Your task to perform on an android device: toggle translation in the chrome app Image 0: 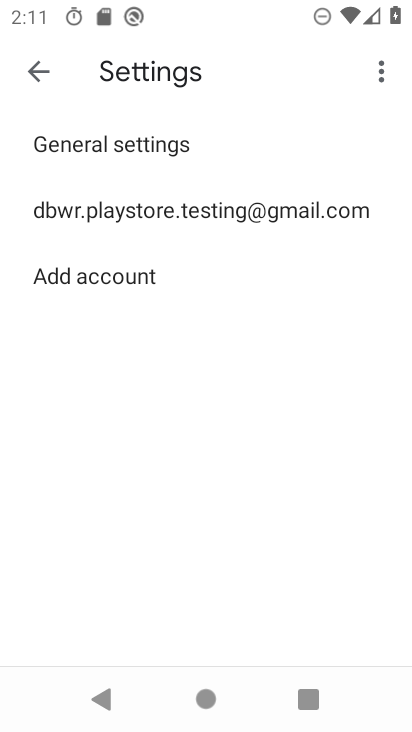
Step 0: press home button
Your task to perform on an android device: toggle translation in the chrome app Image 1: 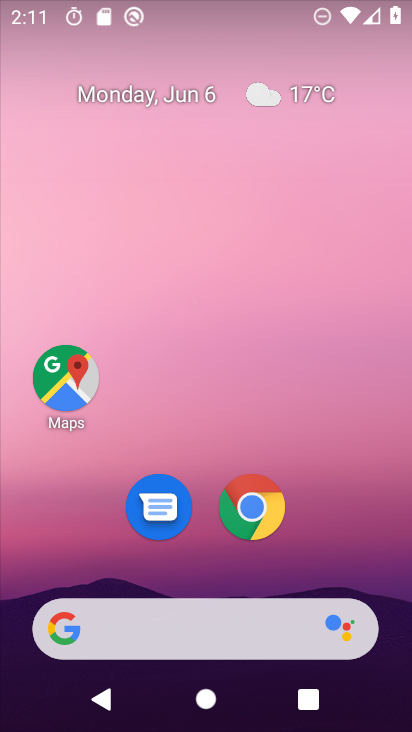
Step 1: drag from (260, 666) to (210, 184)
Your task to perform on an android device: toggle translation in the chrome app Image 2: 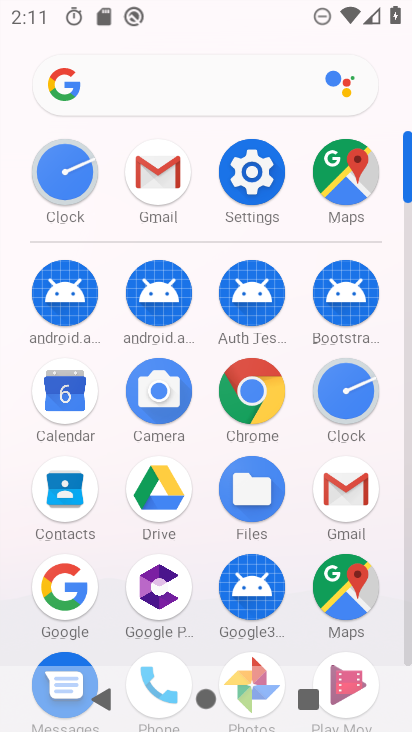
Step 2: click (266, 391)
Your task to perform on an android device: toggle translation in the chrome app Image 3: 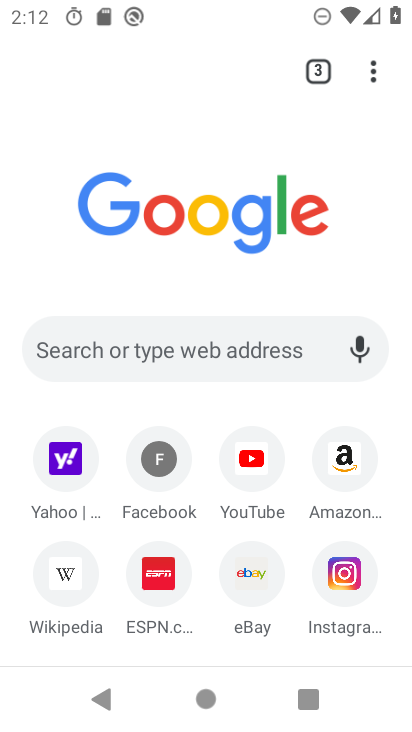
Step 3: click (370, 88)
Your task to perform on an android device: toggle translation in the chrome app Image 4: 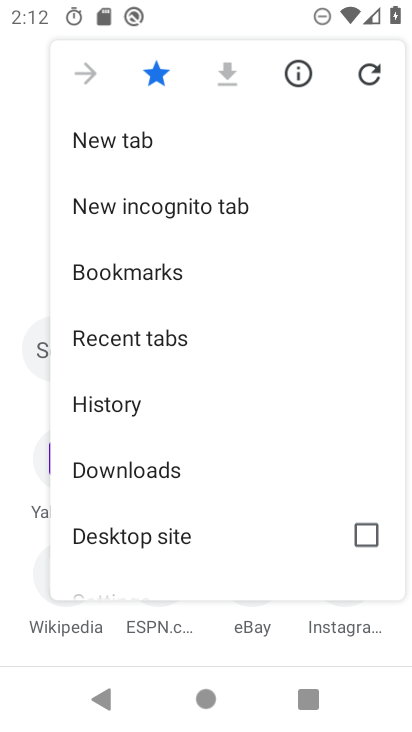
Step 4: drag from (173, 494) to (182, 255)
Your task to perform on an android device: toggle translation in the chrome app Image 5: 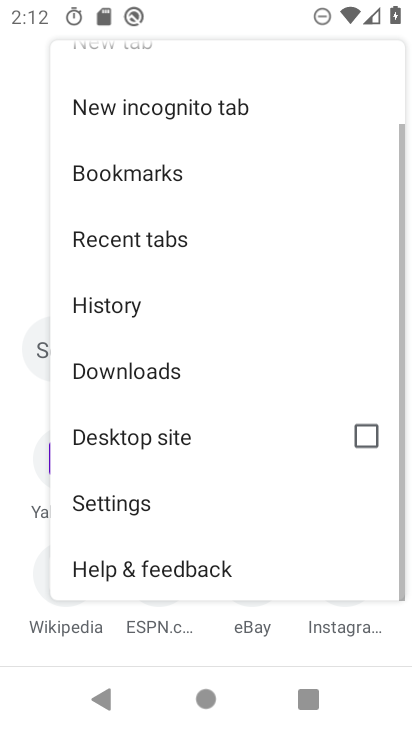
Step 5: click (140, 502)
Your task to perform on an android device: toggle translation in the chrome app Image 6: 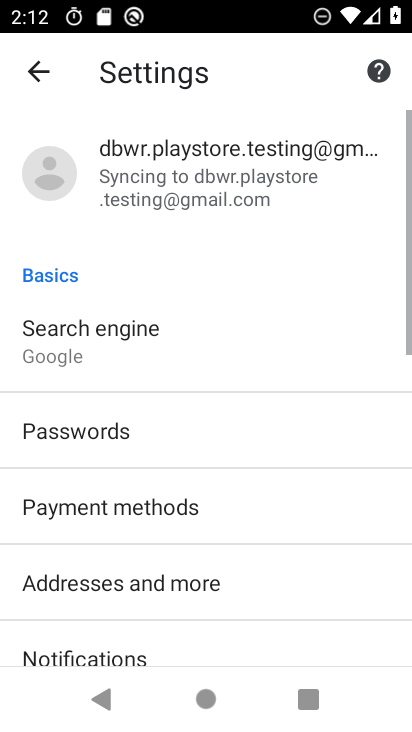
Step 6: drag from (165, 545) to (217, 353)
Your task to perform on an android device: toggle translation in the chrome app Image 7: 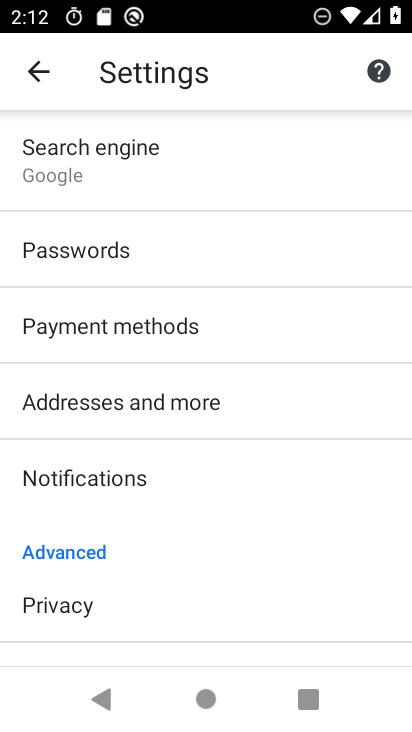
Step 7: drag from (196, 565) to (200, 329)
Your task to perform on an android device: toggle translation in the chrome app Image 8: 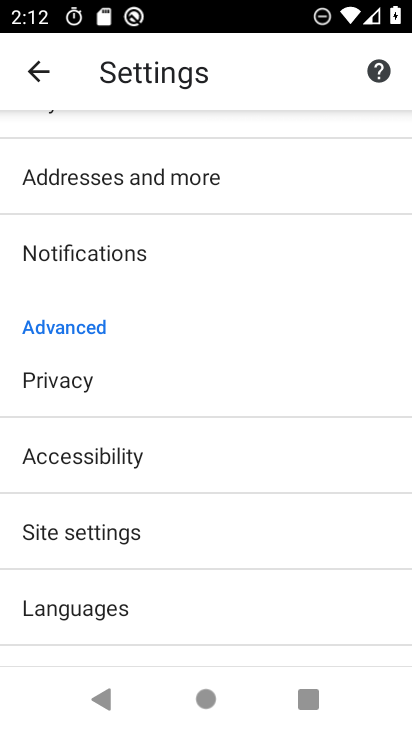
Step 8: click (113, 613)
Your task to perform on an android device: toggle translation in the chrome app Image 9: 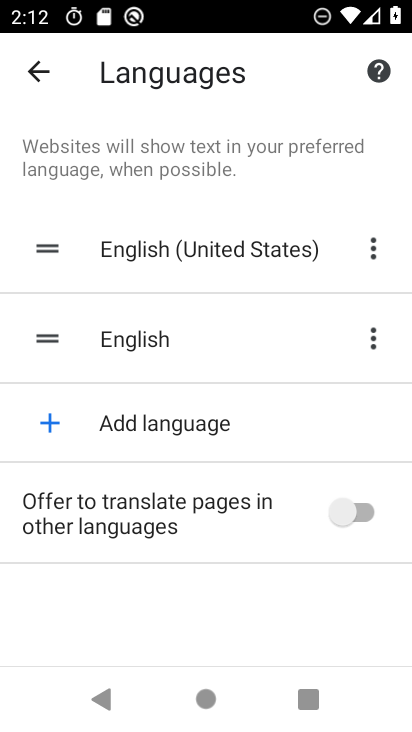
Step 9: click (362, 515)
Your task to perform on an android device: toggle translation in the chrome app Image 10: 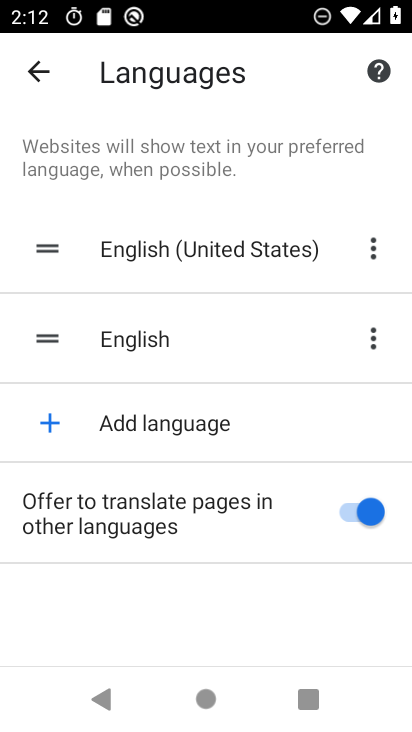
Step 10: task complete